Your task to perform on an android device: read, delete, or share a saved page in the chrome app Image 0: 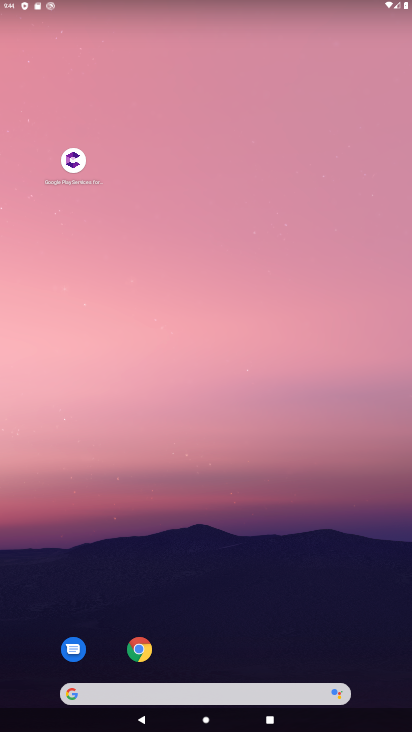
Step 0: click (149, 650)
Your task to perform on an android device: read, delete, or share a saved page in the chrome app Image 1: 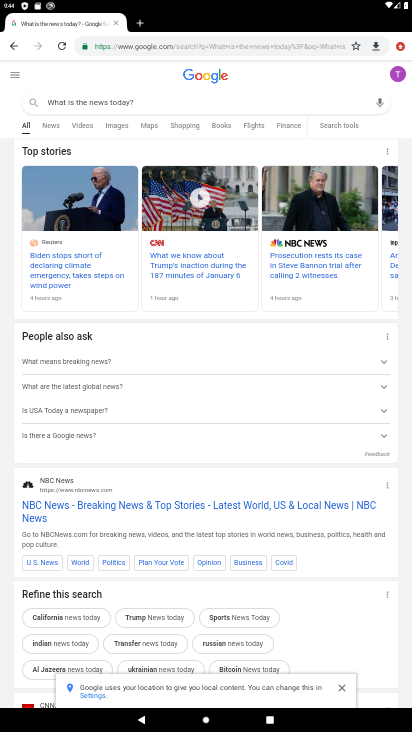
Step 1: click (408, 52)
Your task to perform on an android device: read, delete, or share a saved page in the chrome app Image 2: 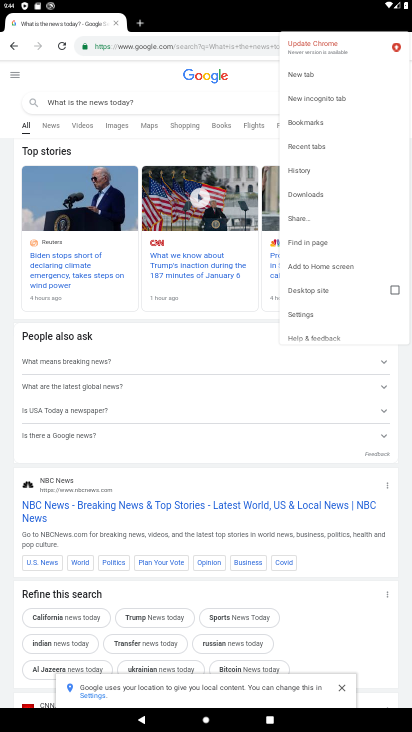
Step 2: click (319, 194)
Your task to perform on an android device: read, delete, or share a saved page in the chrome app Image 3: 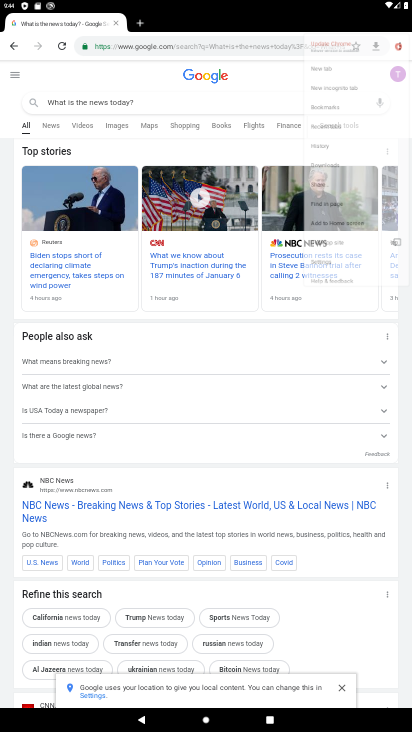
Step 3: click (314, 194)
Your task to perform on an android device: read, delete, or share a saved page in the chrome app Image 4: 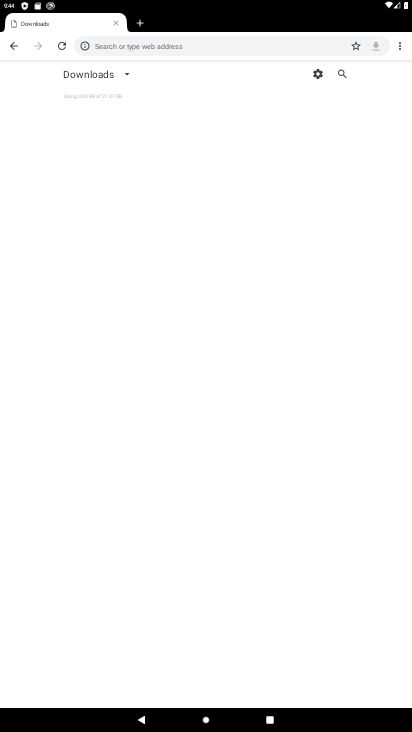
Step 4: click (117, 78)
Your task to perform on an android device: read, delete, or share a saved page in the chrome app Image 5: 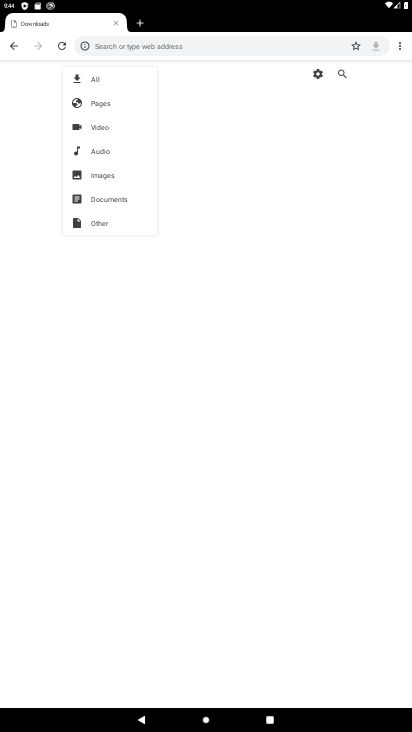
Step 5: click (94, 107)
Your task to perform on an android device: read, delete, or share a saved page in the chrome app Image 6: 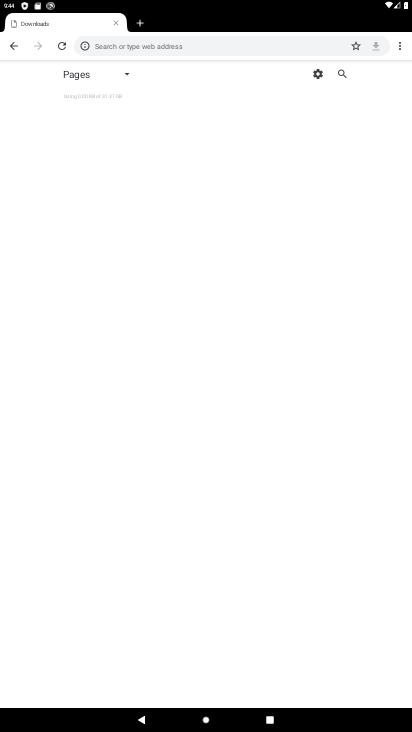
Step 6: task complete